Your task to perform on an android device: choose inbox layout in the gmail app Image 0: 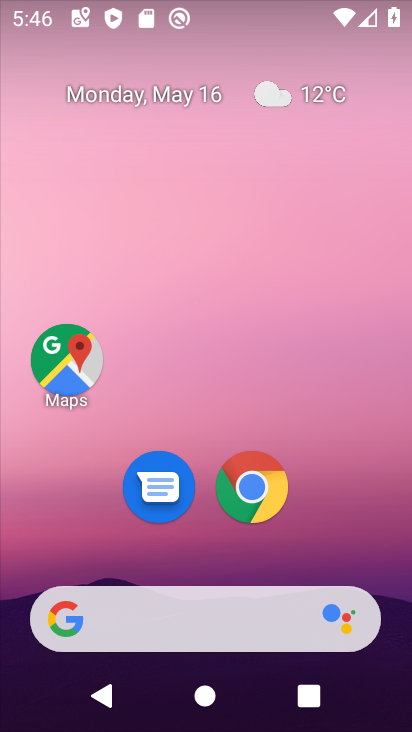
Step 0: drag from (337, 484) to (170, 16)
Your task to perform on an android device: choose inbox layout in the gmail app Image 1: 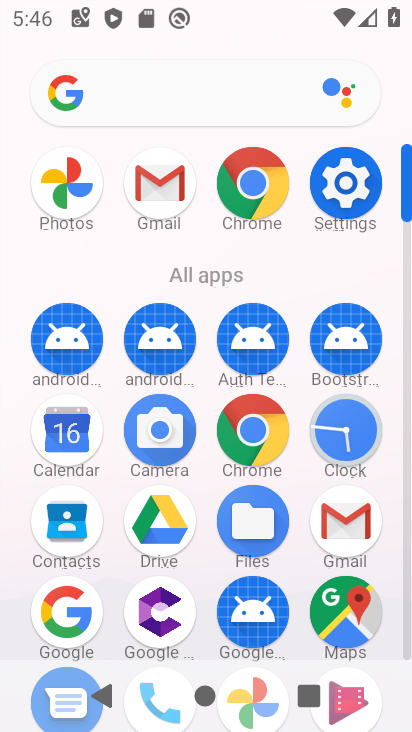
Step 1: click (155, 190)
Your task to perform on an android device: choose inbox layout in the gmail app Image 2: 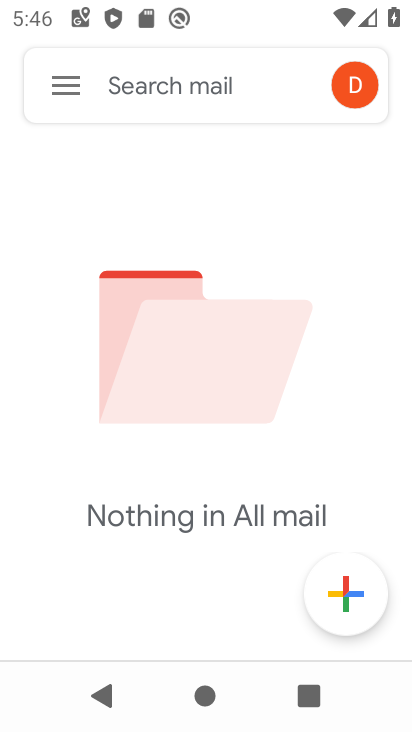
Step 2: click (74, 86)
Your task to perform on an android device: choose inbox layout in the gmail app Image 3: 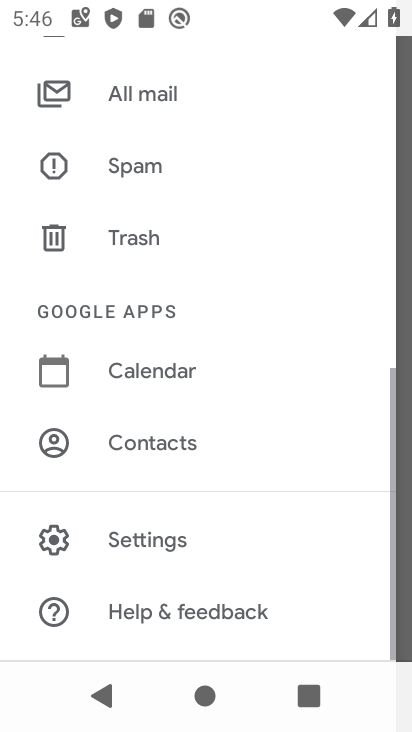
Step 3: drag from (227, 599) to (233, 261)
Your task to perform on an android device: choose inbox layout in the gmail app Image 4: 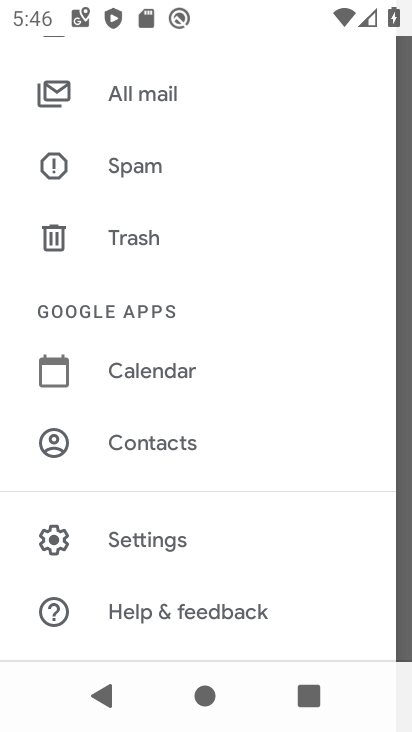
Step 4: click (147, 548)
Your task to perform on an android device: choose inbox layout in the gmail app Image 5: 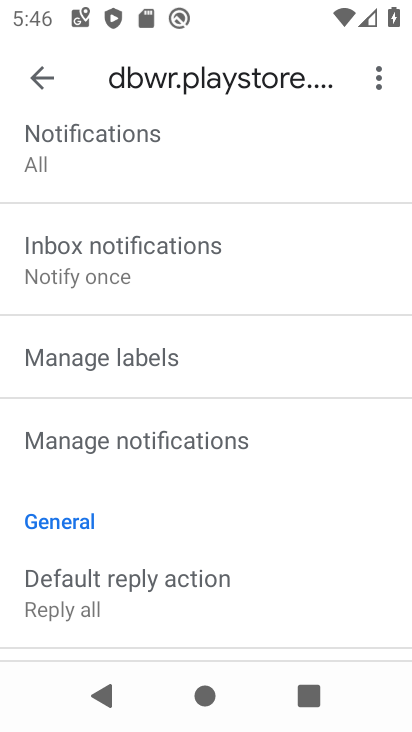
Step 5: drag from (136, 202) to (120, 638)
Your task to perform on an android device: choose inbox layout in the gmail app Image 6: 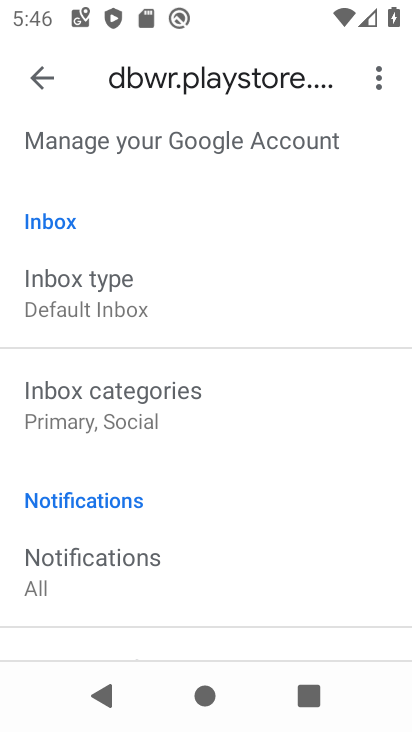
Step 6: click (130, 298)
Your task to perform on an android device: choose inbox layout in the gmail app Image 7: 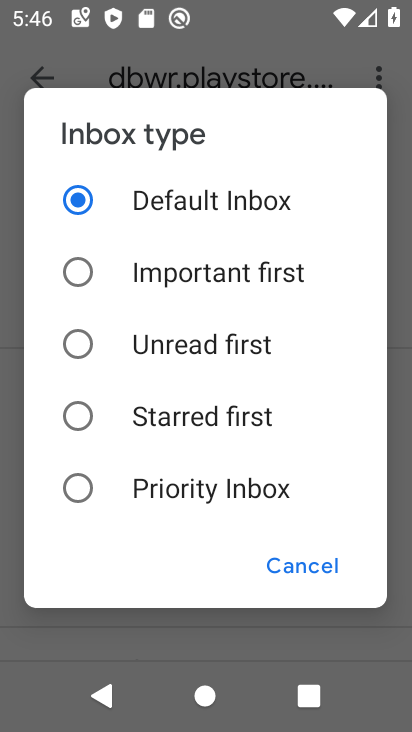
Step 7: task complete